Your task to perform on an android device: Play the last video I watched on Youtube Image 0: 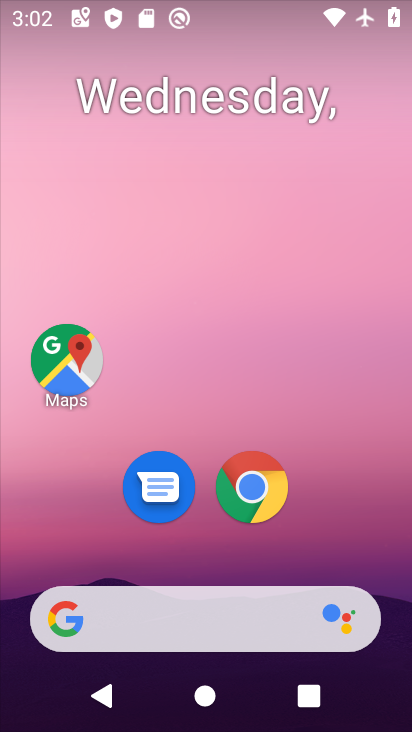
Step 0: drag from (354, 592) to (356, 40)
Your task to perform on an android device: Play the last video I watched on Youtube Image 1: 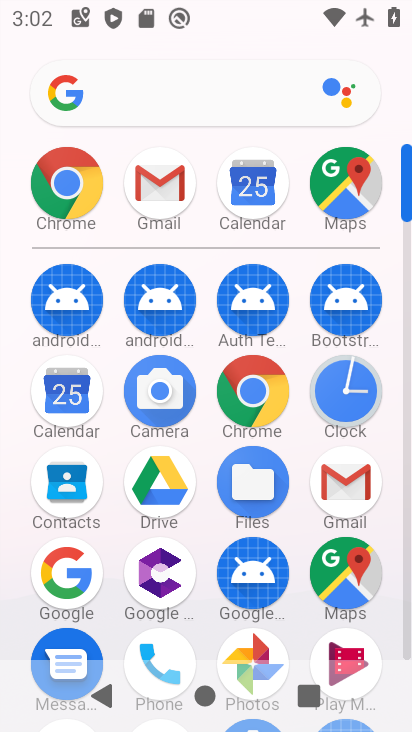
Step 1: drag from (393, 572) to (410, 138)
Your task to perform on an android device: Play the last video I watched on Youtube Image 2: 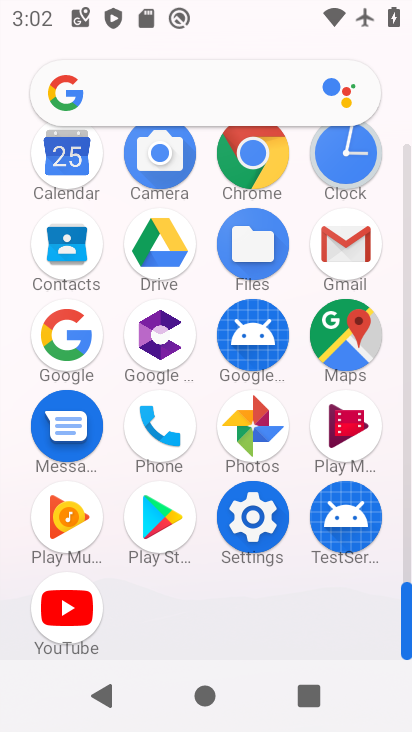
Step 2: click (86, 612)
Your task to perform on an android device: Play the last video I watched on Youtube Image 3: 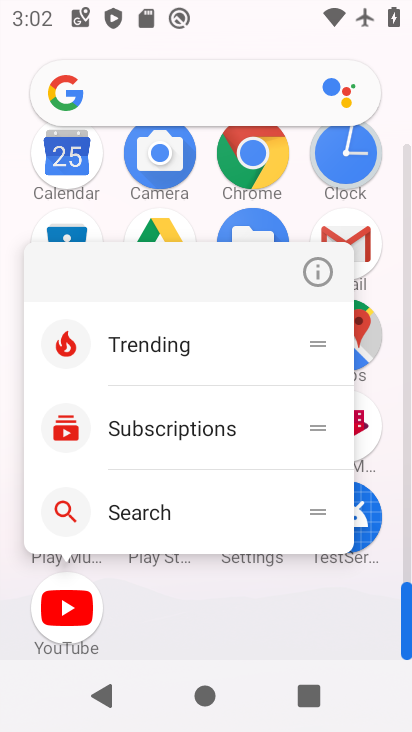
Step 3: click (86, 609)
Your task to perform on an android device: Play the last video I watched on Youtube Image 4: 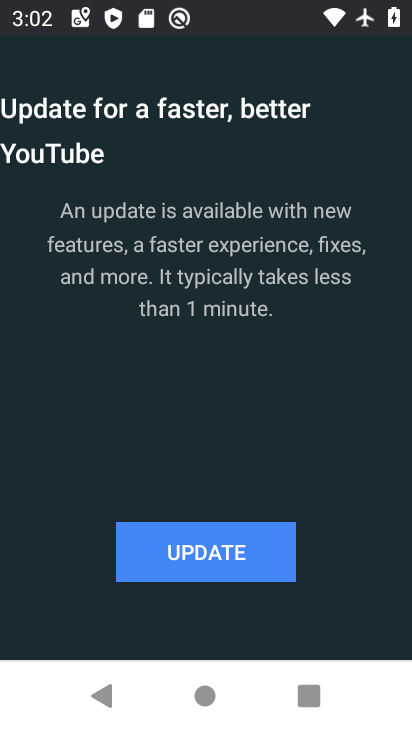
Step 4: click (223, 560)
Your task to perform on an android device: Play the last video I watched on Youtube Image 5: 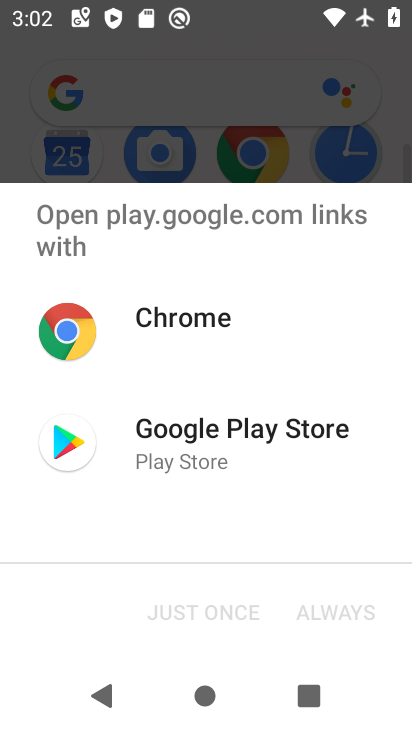
Step 5: click (186, 465)
Your task to perform on an android device: Play the last video I watched on Youtube Image 6: 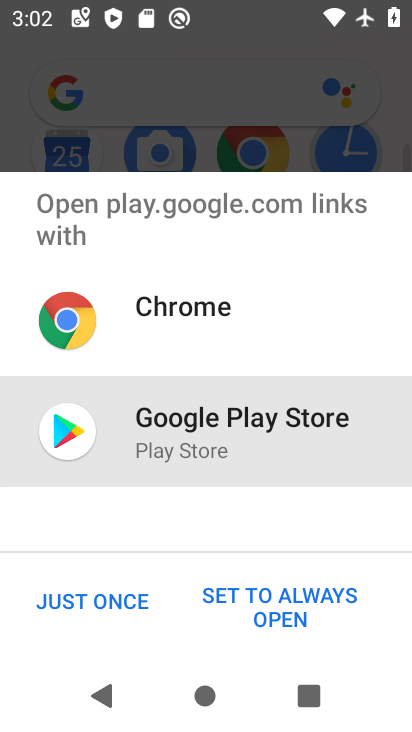
Step 6: click (108, 607)
Your task to perform on an android device: Play the last video I watched on Youtube Image 7: 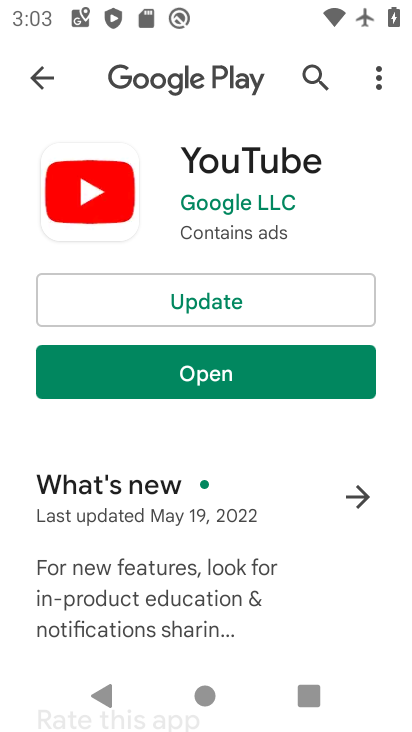
Step 7: click (217, 311)
Your task to perform on an android device: Play the last video I watched on Youtube Image 8: 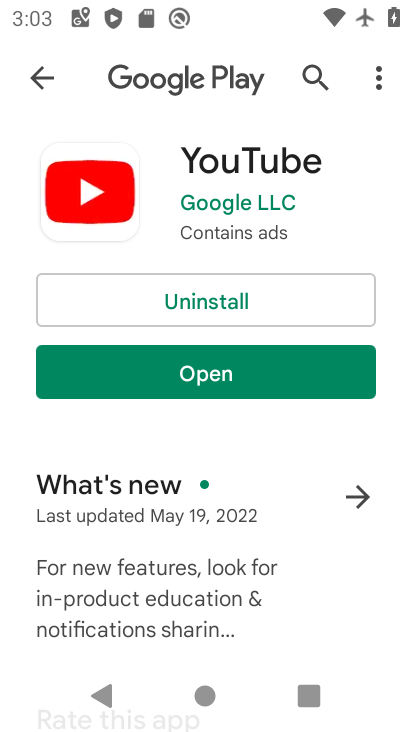
Step 8: click (220, 374)
Your task to perform on an android device: Play the last video I watched on Youtube Image 9: 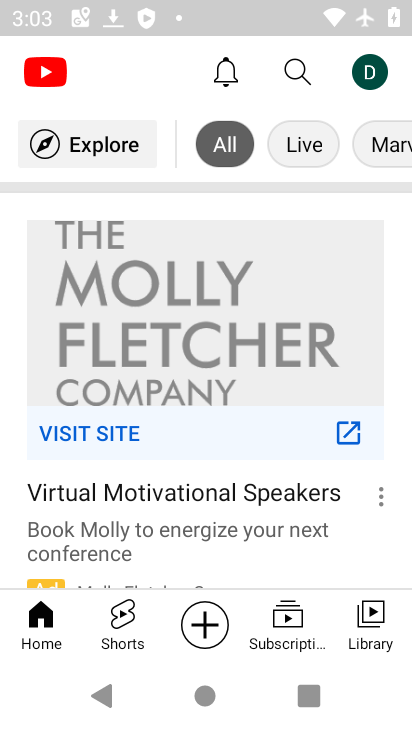
Step 9: click (353, 624)
Your task to perform on an android device: Play the last video I watched on Youtube Image 10: 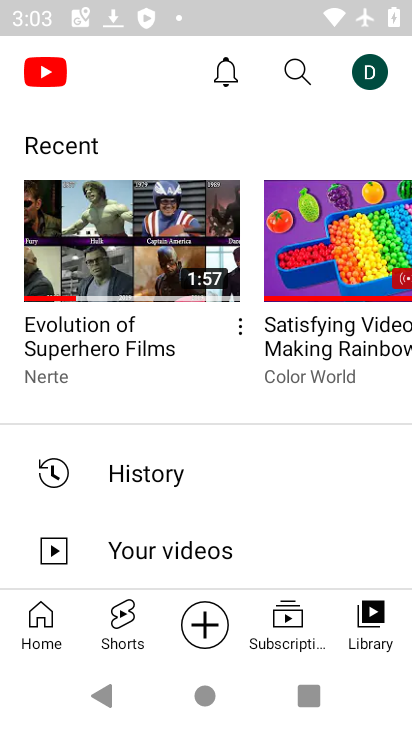
Step 10: click (158, 261)
Your task to perform on an android device: Play the last video I watched on Youtube Image 11: 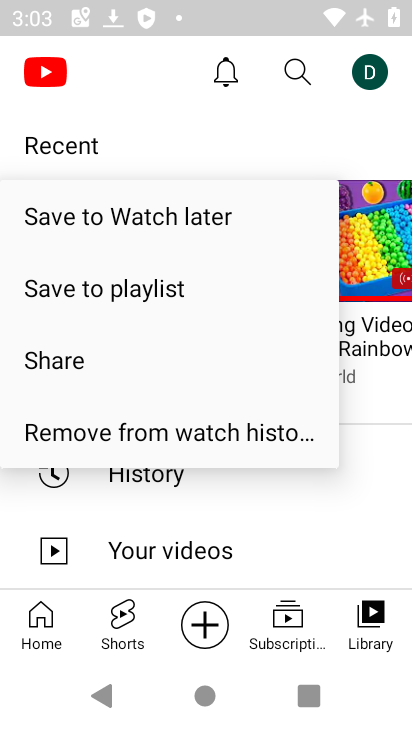
Step 11: click (266, 139)
Your task to perform on an android device: Play the last video I watched on Youtube Image 12: 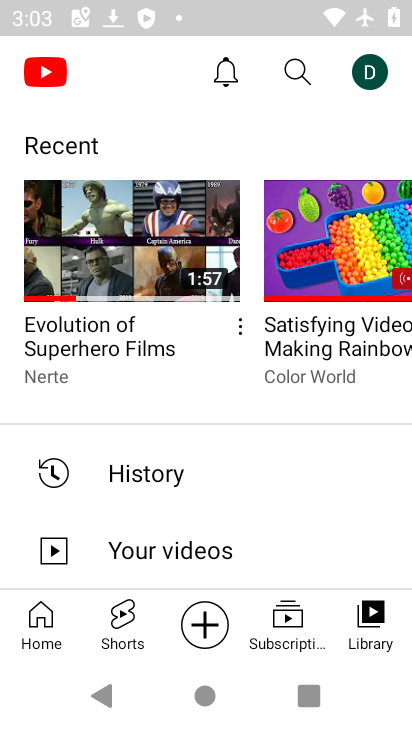
Step 12: click (136, 233)
Your task to perform on an android device: Play the last video I watched on Youtube Image 13: 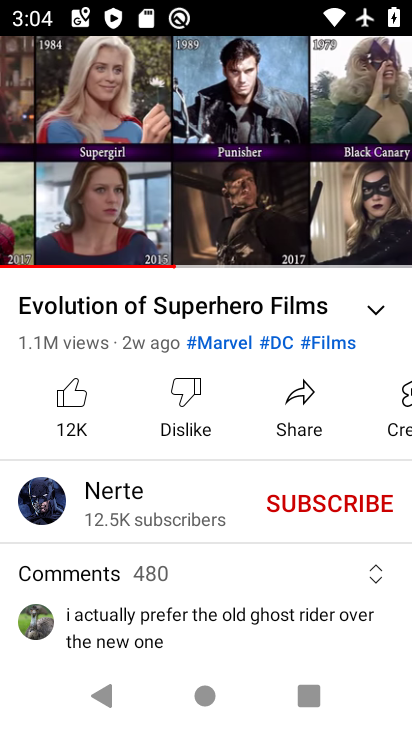
Step 13: task complete